Your task to perform on an android device: Is it going to rain this weekend? Image 0: 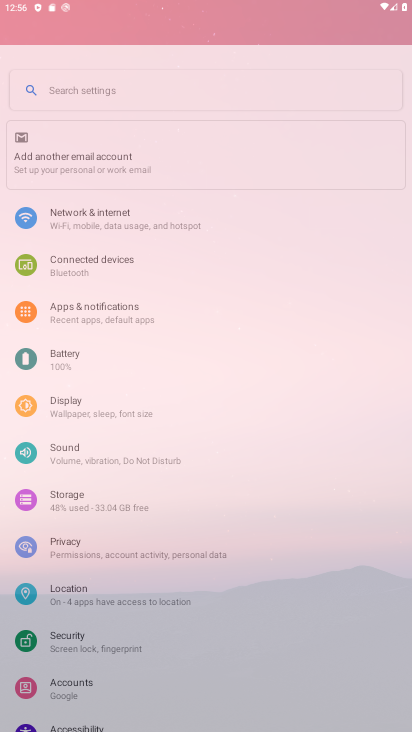
Step 0: press home button
Your task to perform on an android device: Is it going to rain this weekend? Image 1: 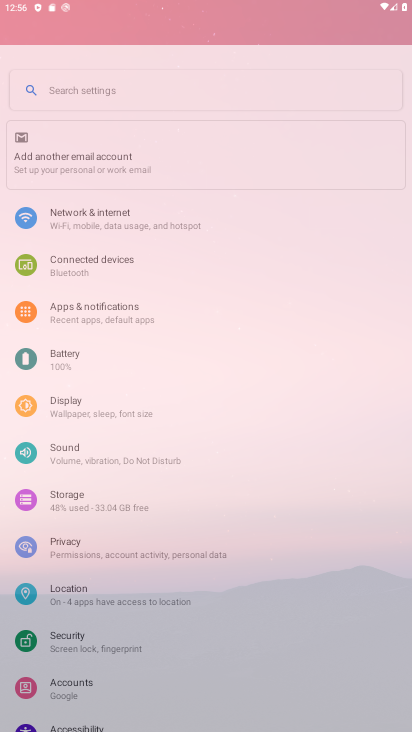
Step 1: click (245, 272)
Your task to perform on an android device: Is it going to rain this weekend? Image 2: 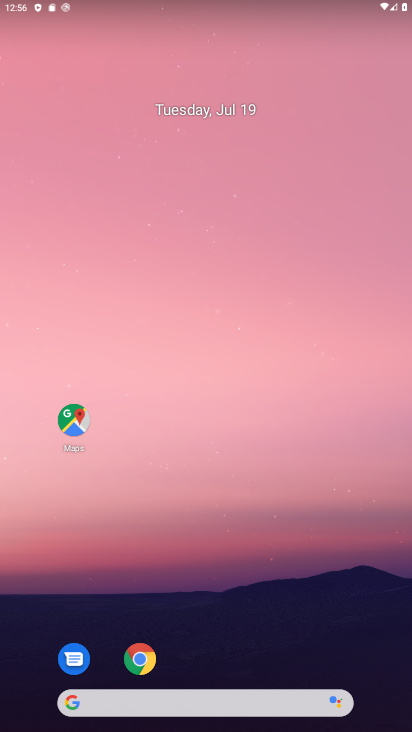
Step 2: click (79, 436)
Your task to perform on an android device: Is it going to rain this weekend? Image 3: 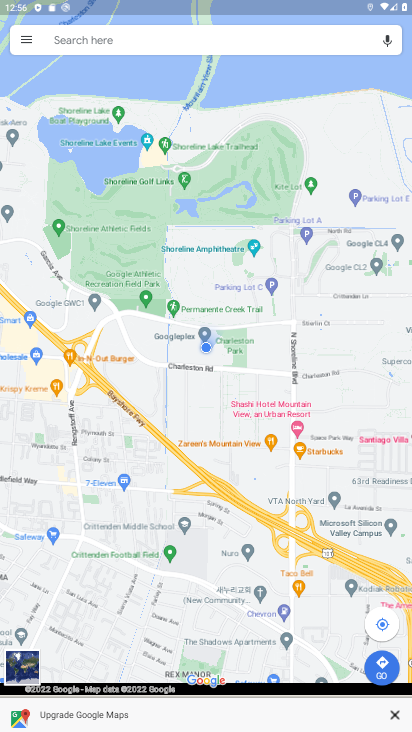
Step 3: press home button
Your task to perform on an android device: Is it going to rain this weekend? Image 4: 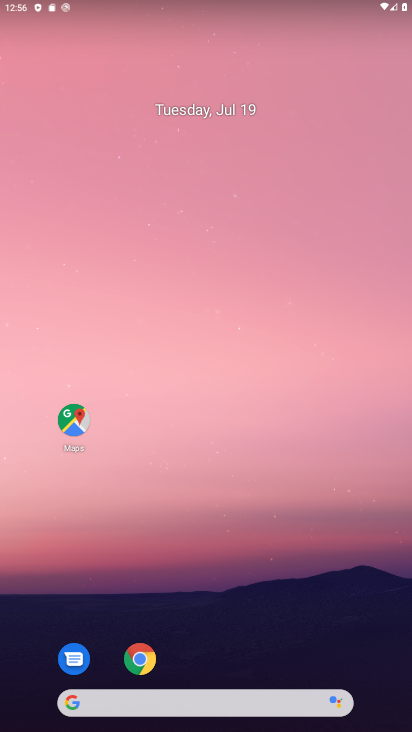
Step 4: drag from (229, 636) to (202, 147)
Your task to perform on an android device: Is it going to rain this weekend? Image 5: 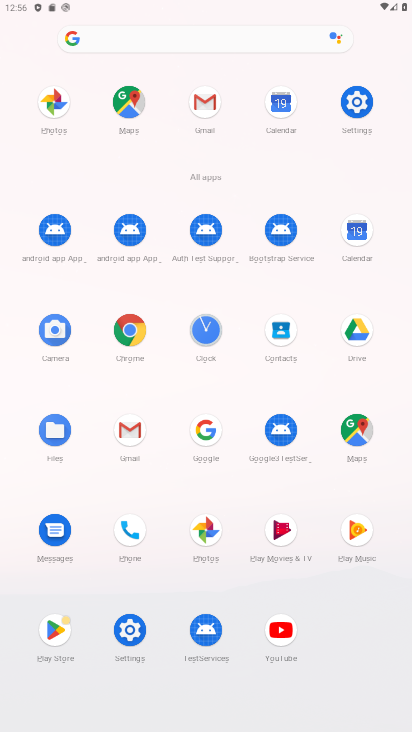
Step 5: click (139, 338)
Your task to perform on an android device: Is it going to rain this weekend? Image 6: 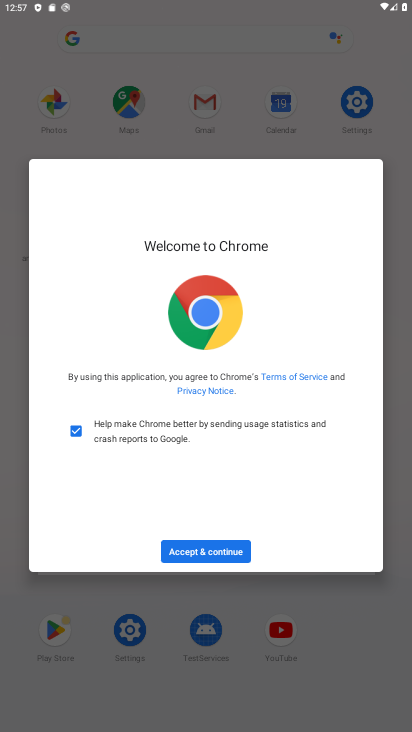
Step 6: click (183, 544)
Your task to perform on an android device: Is it going to rain this weekend? Image 7: 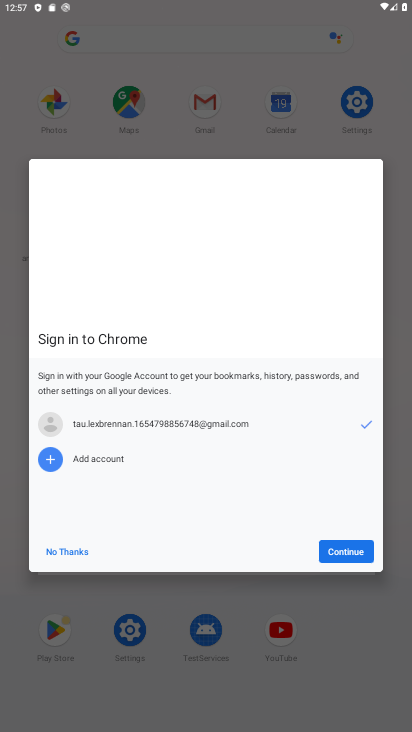
Step 7: click (357, 553)
Your task to perform on an android device: Is it going to rain this weekend? Image 8: 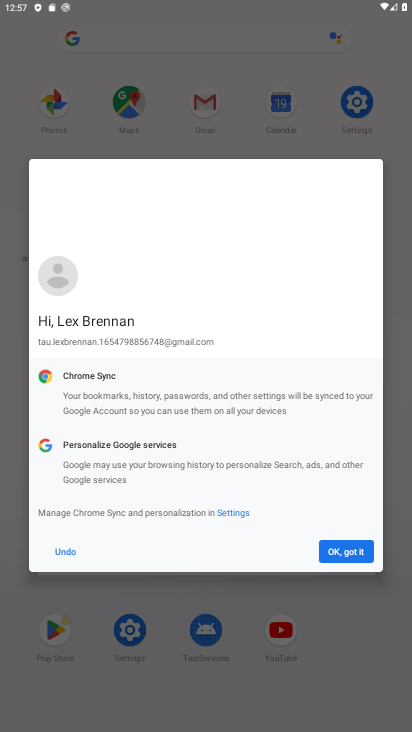
Step 8: click (357, 553)
Your task to perform on an android device: Is it going to rain this weekend? Image 9: 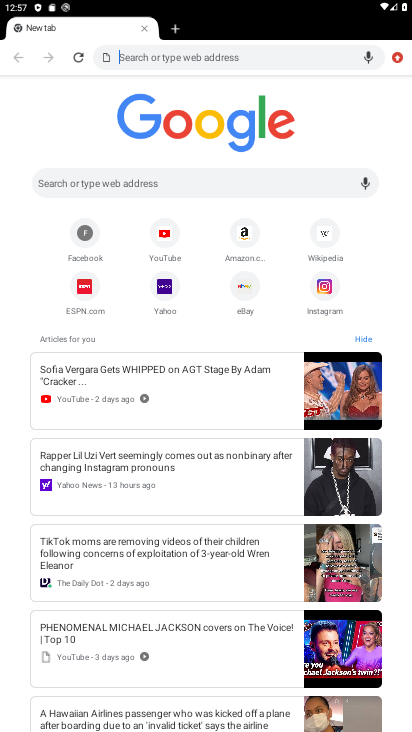
Step 9: click (263, 48)
Your task to perform on an android device: Is it going to rain this weekend? Image 10: 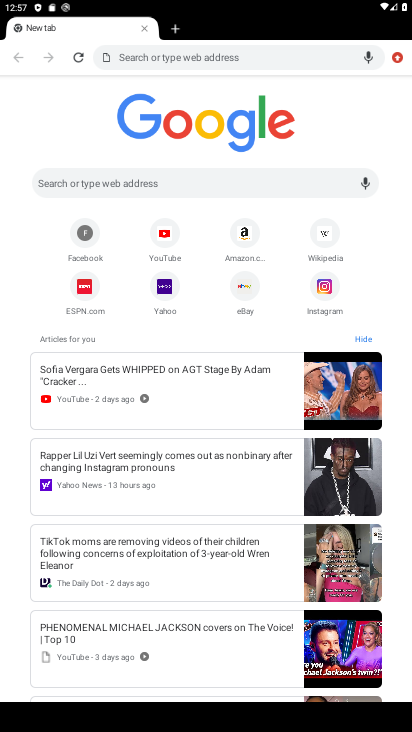
Step 10: click (264, 60)
Your task to perform on an android device: Is it going to rain this weekend? Image 11: 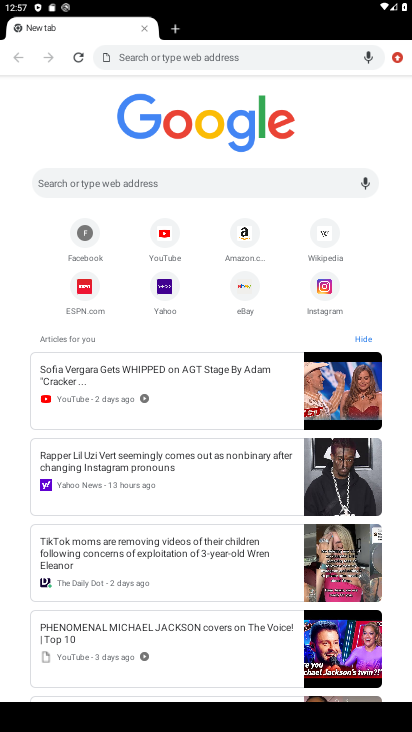
Step 11: type "Is it going to rain this weekend?"
Your task to perform on an android device: Is it going to rain this weekend? Image 12: 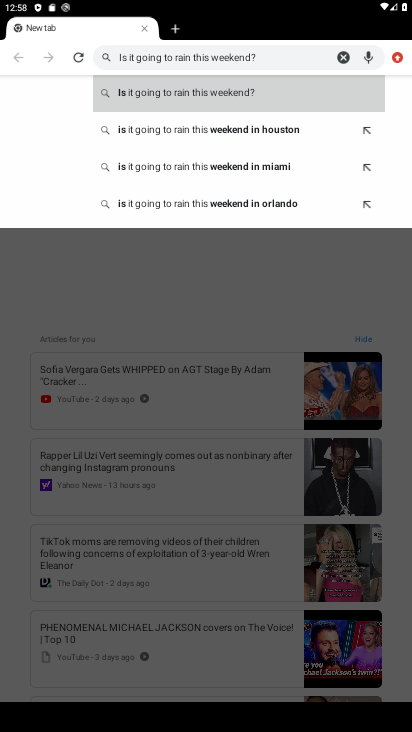
Step 12: click (130, 89)
Your task to perform on an android device: Is it going to rain this weekend? Image 13: 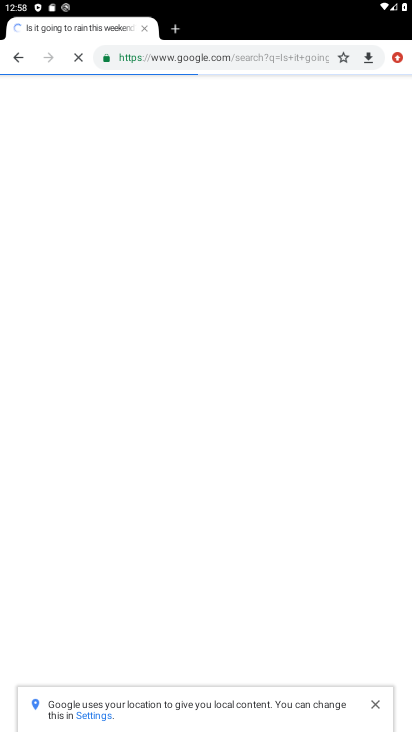
Step 13: click (93, 48)
Your task to perform on an android device: Is it going to rain this weekend? Image 14: 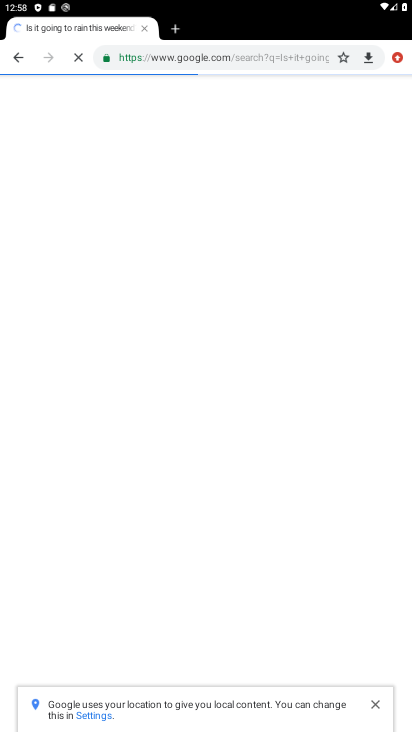
Step 14: click (93, 48)
Your task to perform on an android device: Is it going to rain this weekend? Image 15: 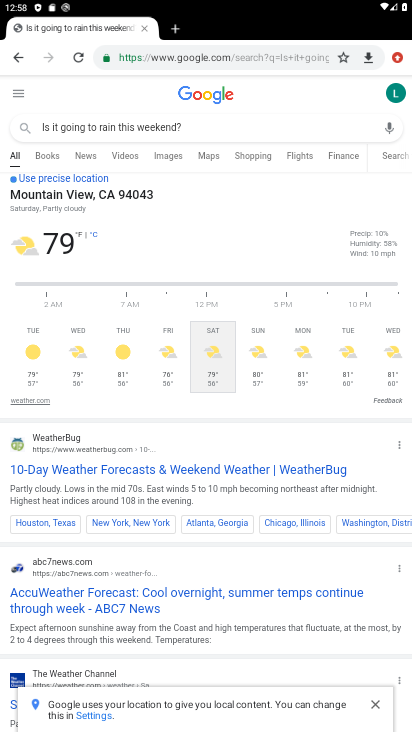
Step 15: task complete